Your task to perform on an android device: Open settings Image 0: 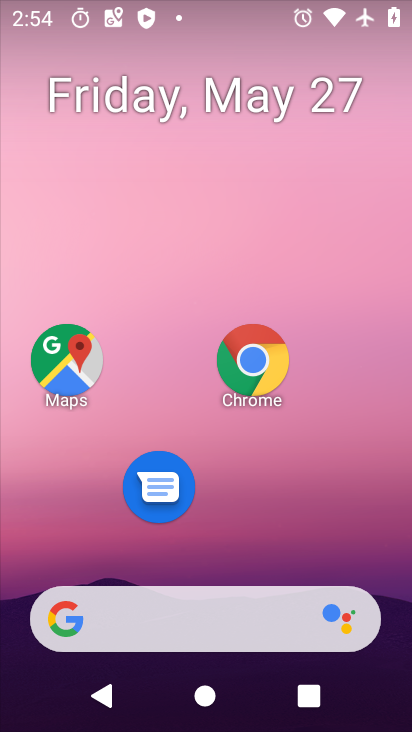
Step 0: drag from (258, 502) to (262, 68)
Your task to perform on an android device: Open settings Image 1: 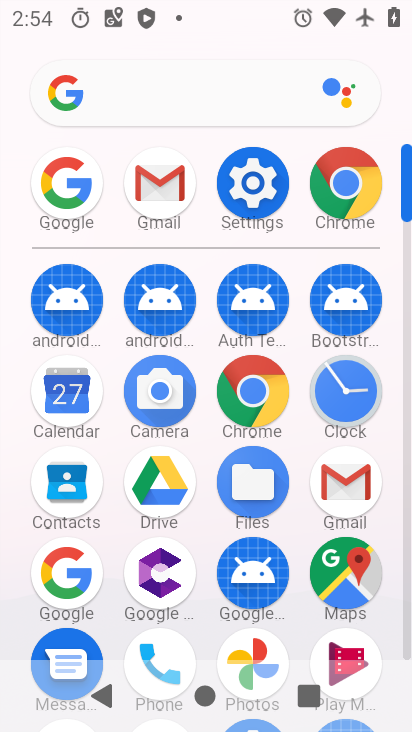
Step 1: click (262, 186)
Your task to perform on an android device: Open settings Image 2: 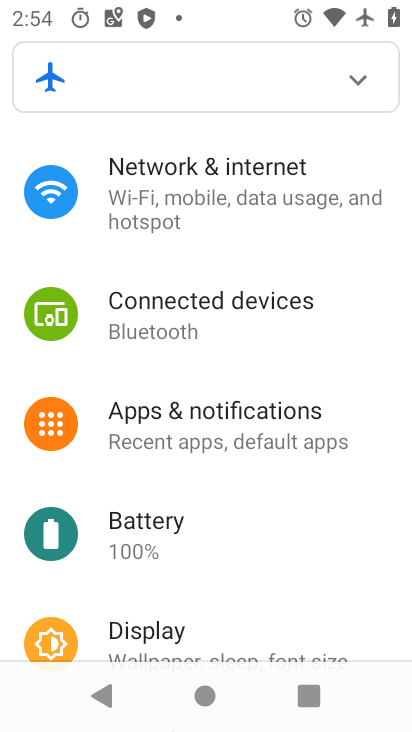
Step 2: task complete